Your task to perform on an android device: Is it going to rain today? Image 0: 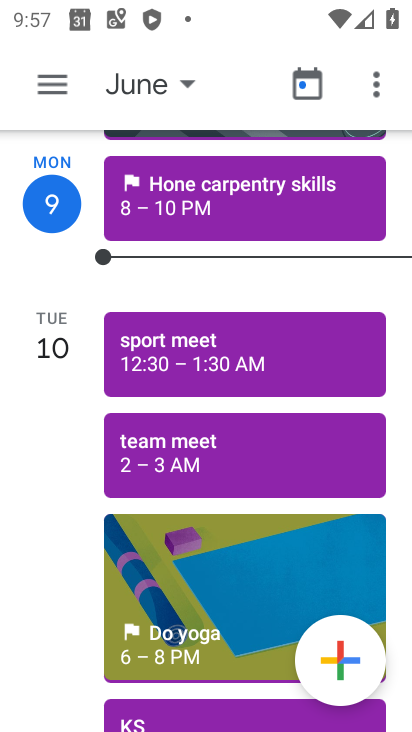
Step 0: press home button
Your task to perform on an android device: Is it going to rain today? Image 1: 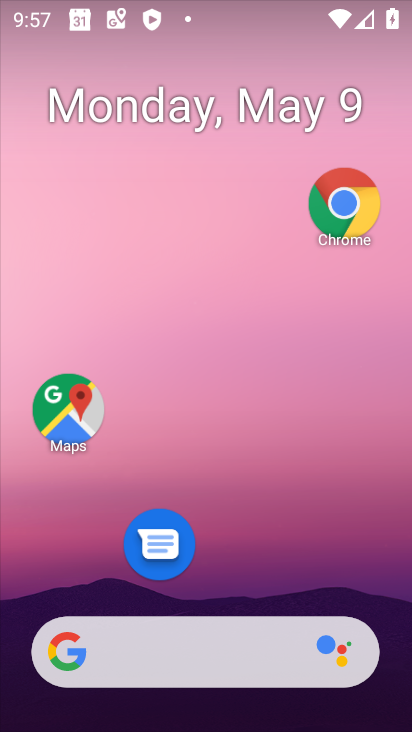
Step 1: drag from (219, 567) to (222, 154)
Your task to perform on an android device: Is it going to rain today? Image 2: 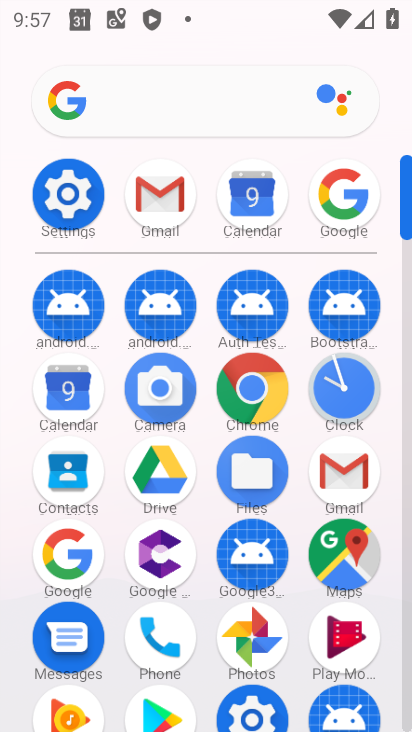
Step 2: click (335, 193)
Your task to perform on an android device: Is it going to rain today? Image 3: 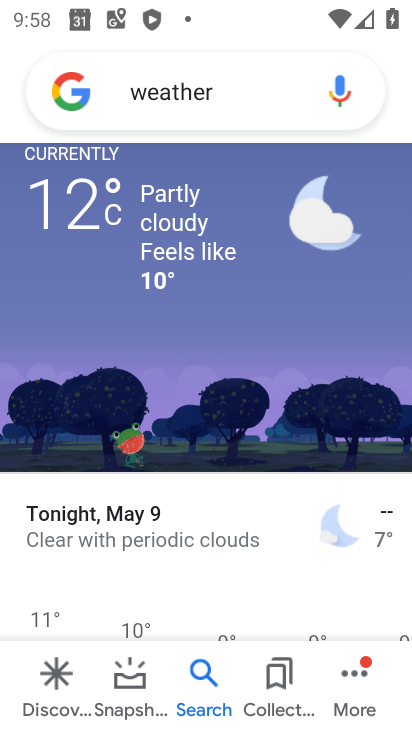
Step 3: task complete